Your task to perform on an android device: Search for Italian restaurants on Maps Image 0: 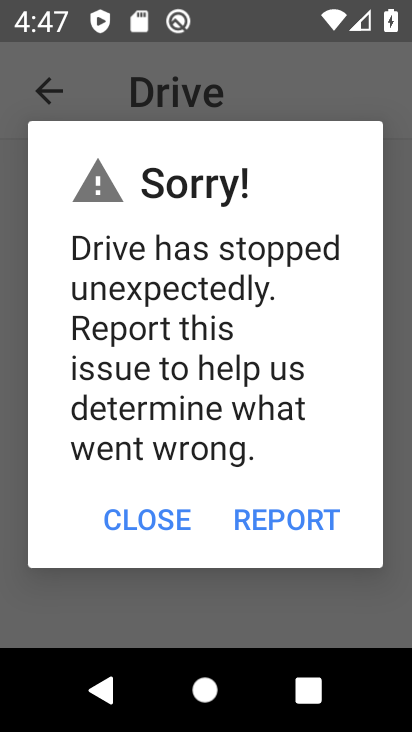
Step 0: drag from (331, 505) to (360, 369)
Your task to perform on an android device: Search for Italian restaurants on Maps Image 1: 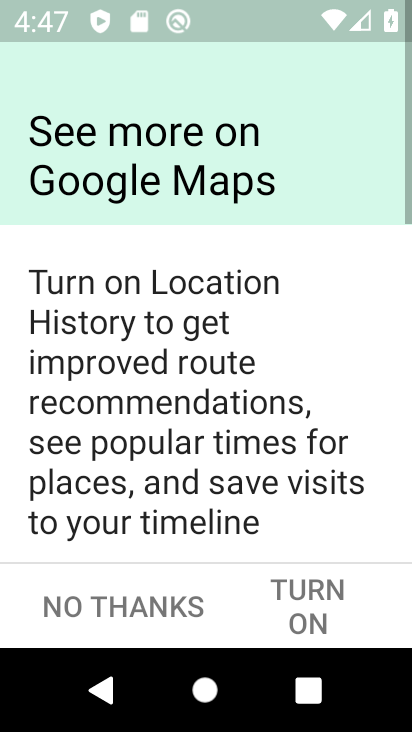
Step 1: press home button
Your task to perform on an android device: Search for Italian restaurants on Maps Image 2: 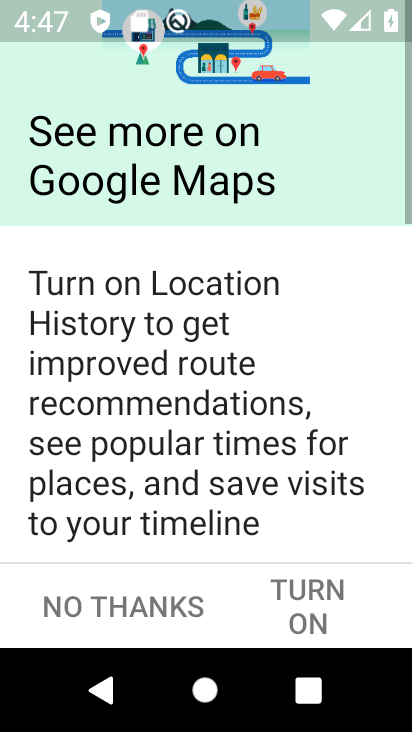
Step 2: drag from (360, 369) to (405, 288)
Your task to perform on an android device: Search for Italian restaurants on Maps Image 3: 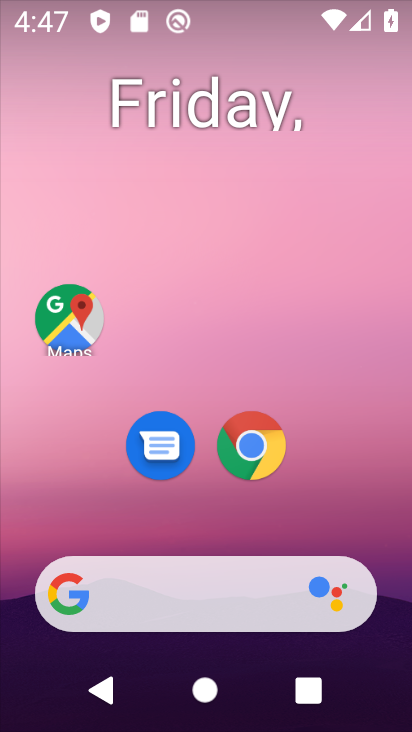
Step 3: drag from (330, 503) to (320, 186)
Your task to perform on an android device: Search for Italian restaurants on Maps Image 4: 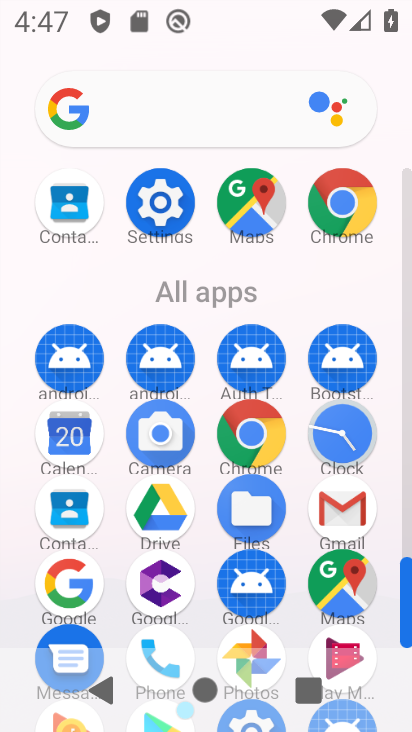
Step 4: click (260, 226)
Your task to perform on an android device: Search for Italian restaurants on Maps Image 5: 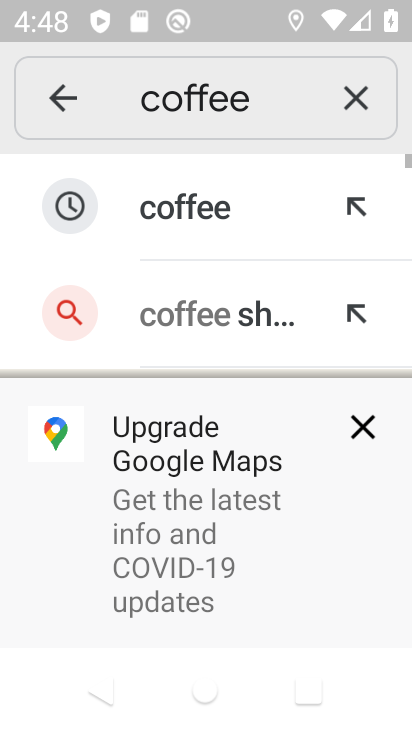
Step 5: click (341, 107)
Your task to perform on an android device: Search for Italian restaurants on Maps Image 6: 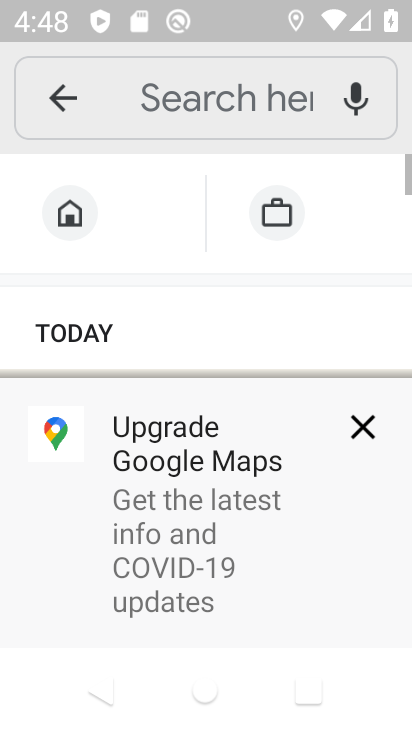
Step 6: click (126, 98)
Your task to perform on an android device: Search for Italian restaurants on Maps Image 7: 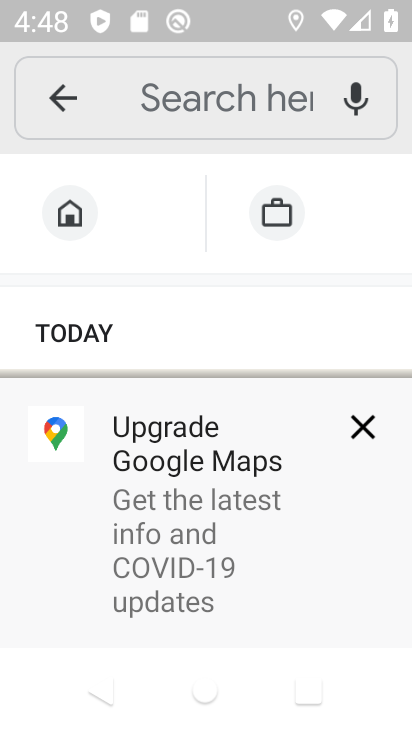
Step 7: click (185, 89)
Your task to perform on an android device: Search for Italian restaurants on Maps Image 8: 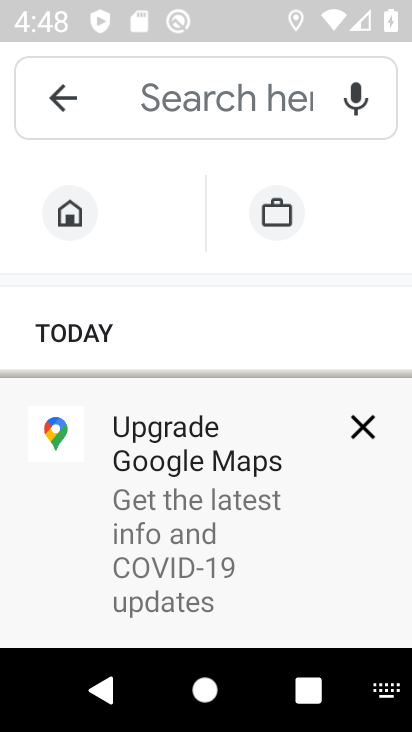
Step 8: type "ittalian"
Your task to perform on an android device: Search for Italian restaurants on Maps Image 9: 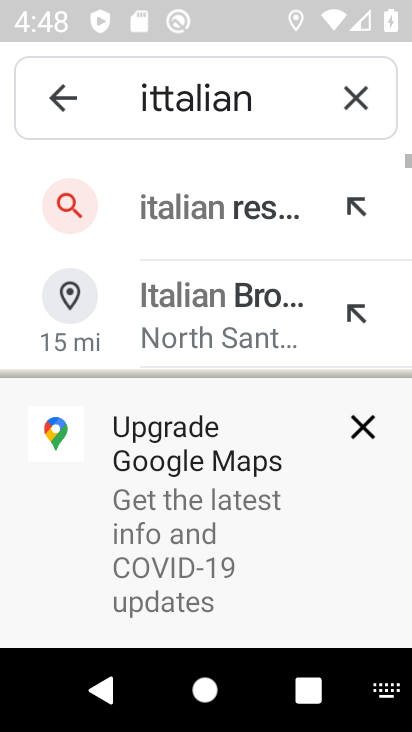
Step 9: click (251, 235)
Your task to perform on an android device: Search for Italian restaurants on Maps Image 10: 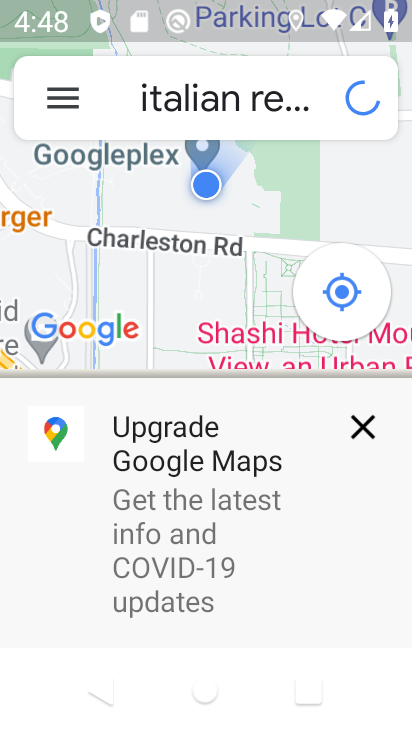
Step 10: task complete